Your task to perform on an android device: Open display settings Image 0: 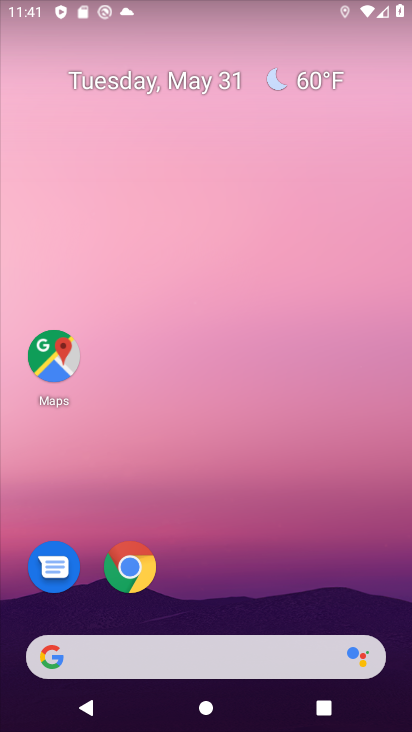
Step 0: drag from (219, 642) to (257, 114)
Your task to perform on an android device: Open display settings Image 1: 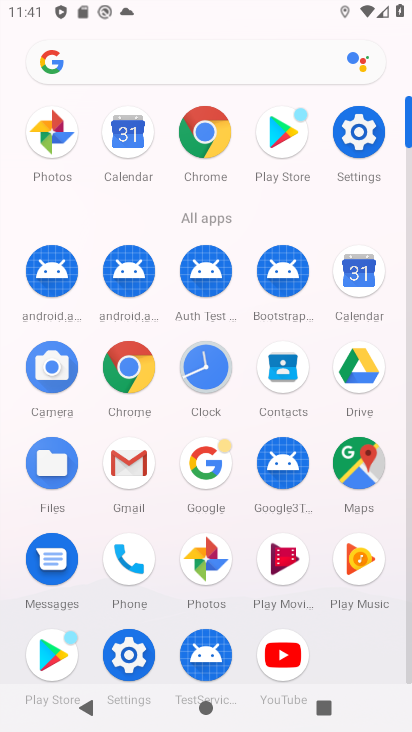
Step 1: click (373, 147)
Your task to perform on an android device: Open display settings Image 2: 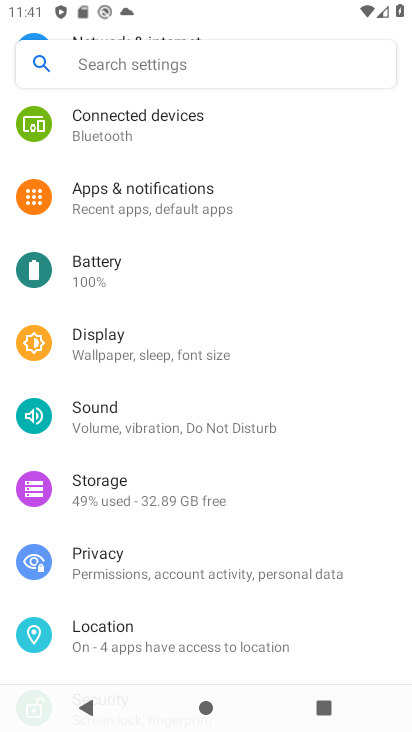
Step 2: click (148, 338)
Your task to perform on an android device: Open display settings Image 3: 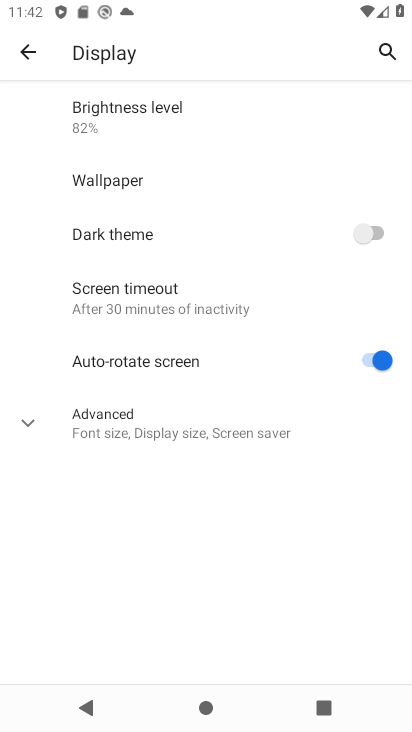
Step 3: task complete